Your task to perform on an android device: open chrome and create a bookmark for the current page Image 0: 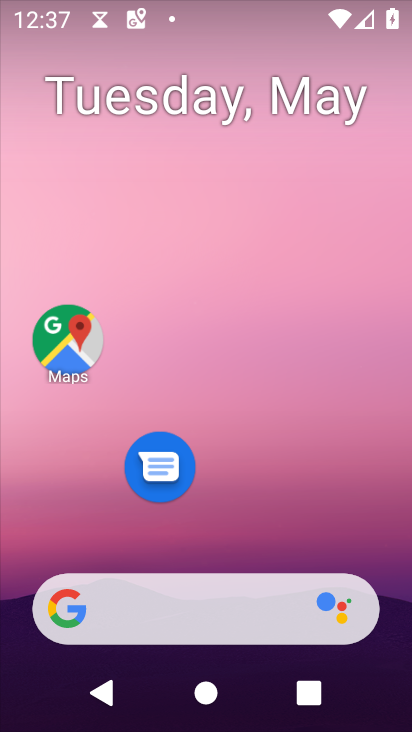
Step 0: drag from (269, 541) to (317, 136)
Your task to perform on an android device: open chrome and create a bookmark for the current page Image 1: 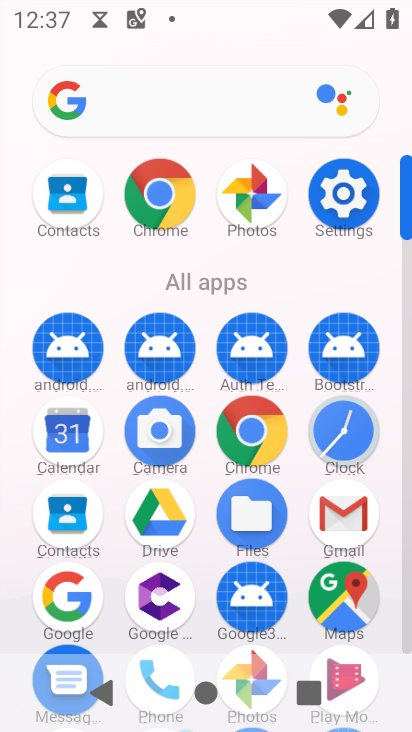
Step 1: click (258, 441)
Your task to perform on an android device: open chrome and create a bookmark for the current page Image 2: 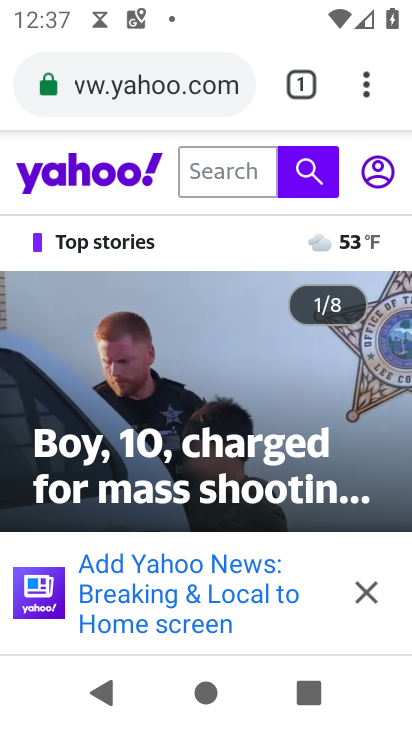
Step 2: click (368, 82)
Your task to perform on an android device: open chrome and create a bookmark for the current page Image 3: 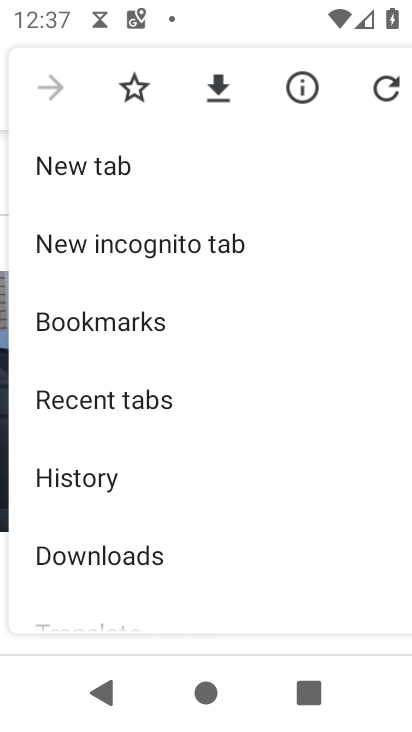
Step 3: click (136, 82)
Your task to perform on an android device: open chrome and create a bookmark for the current page Image 4: 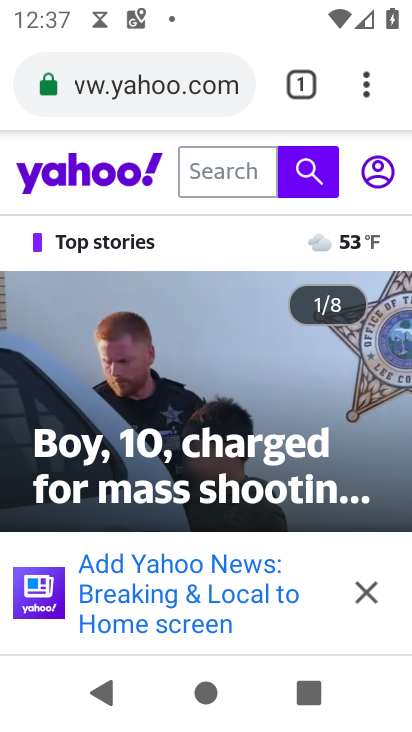
Step 4: task complete